Your task to perform on an android device: turn notification dots off Image 0: 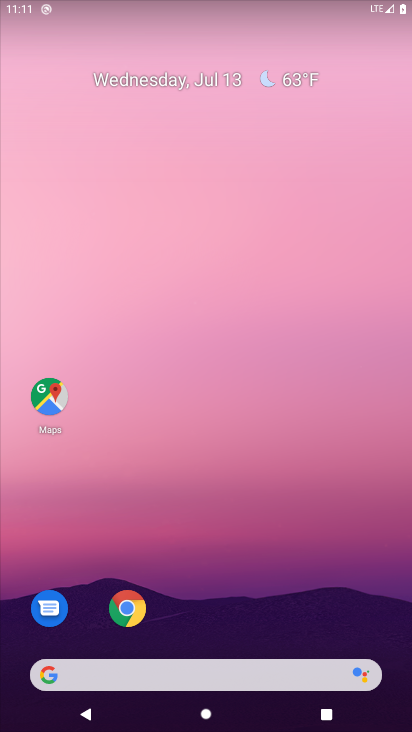
Step 0: drag from (220, 581) to (333, 66)
Your task to perform on an android device: turn notification dots off Image 1: 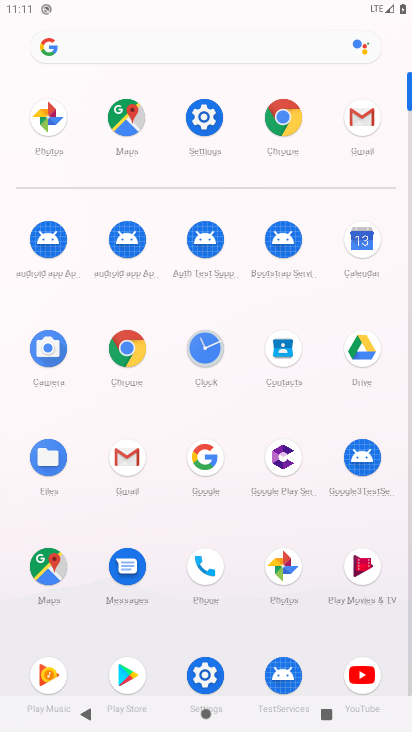
Step 1: click (201, 668)
Your task to perform on an android device: turn notification dots off Image 2: 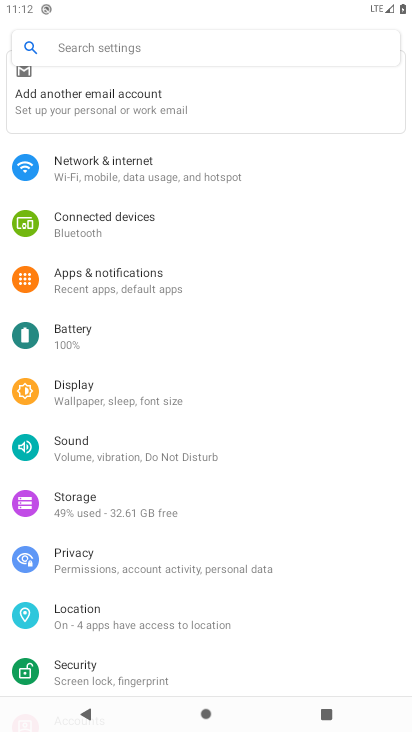
Step 2: click (136, 278)
Your task to perform on an android device: turn notification dots off Image 3: 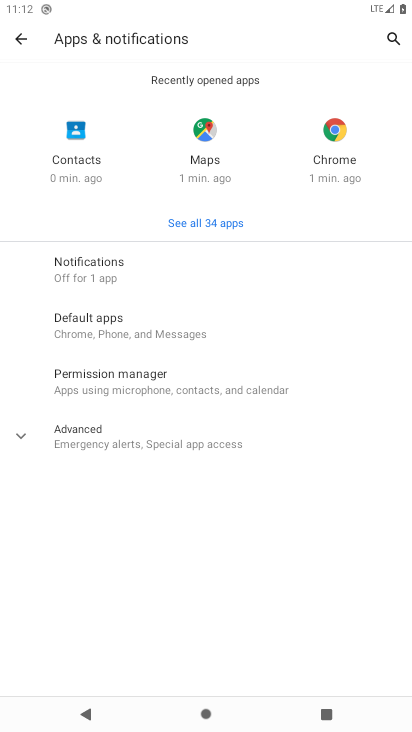
Step 3: click (136, 269)
Your task to perform on an android device: turn notification dots off Image 4: 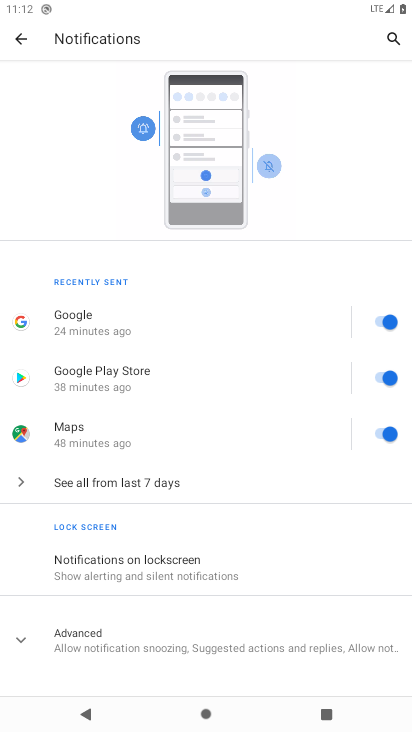
Step 4: click (131, 638)
Your task to perform on an android device: turn notification dots off Image 5: 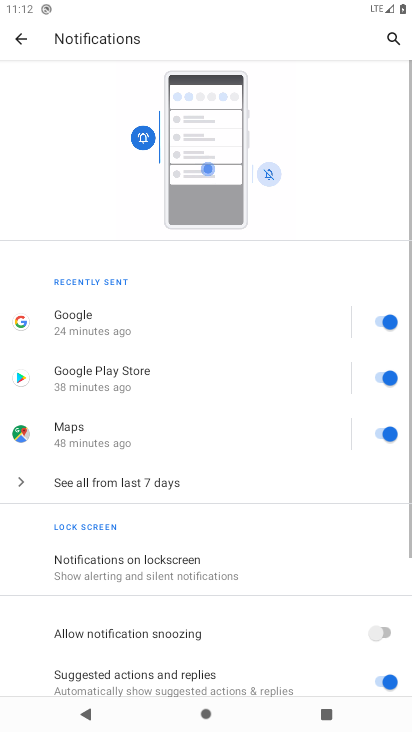
Step 5: task complete